Your task to perform on an android device: Open Chrome and go to settings Image 0: 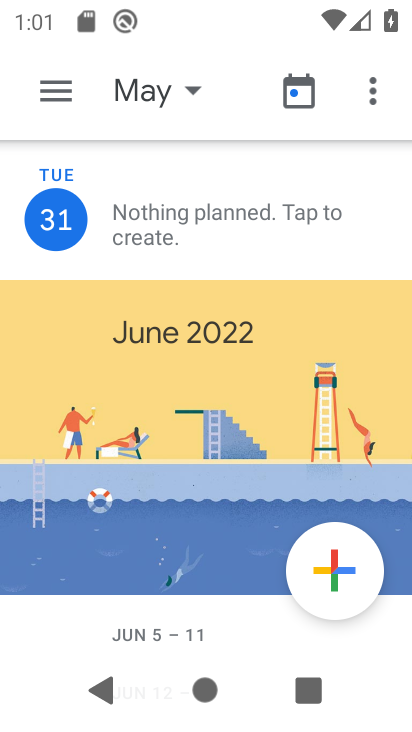
Step 0: press home button
Your task to perform on an android device: Open Chrome and go to settings Image 1: 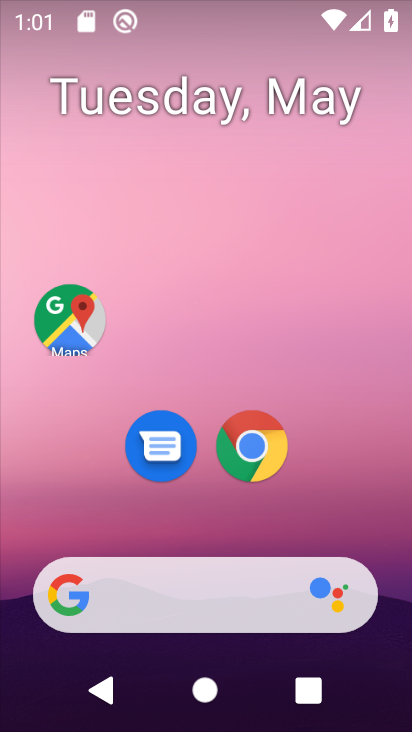
Step 1: click (225, 455)
Your task to perform on an android device: Open Chrome and go to settings Image 2: 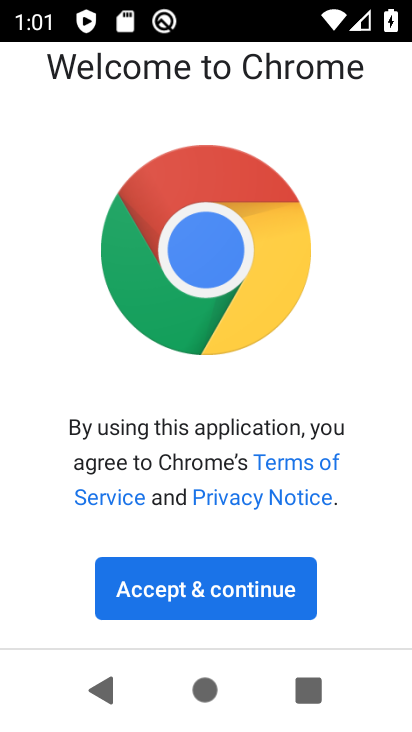
Step 2: click (239, 598)
Your task to perform on an android device: Open Chrome and go to settings Image 3: 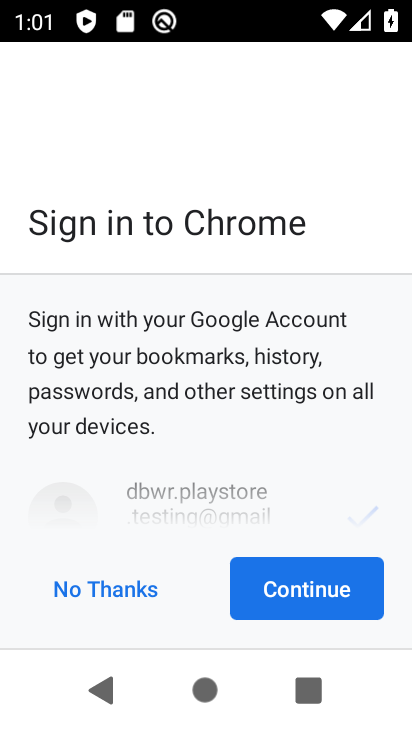
Step 3: click (294, 582)
Your task to perform on an android device: Open Chrome and go to settings Image 4: 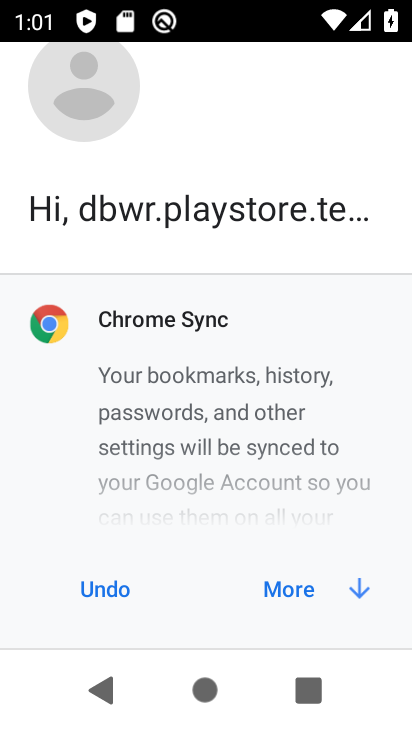
Step 4: click (337, 594)
Your task to perform on an android device: Open Chrome and go to settings Image 5: 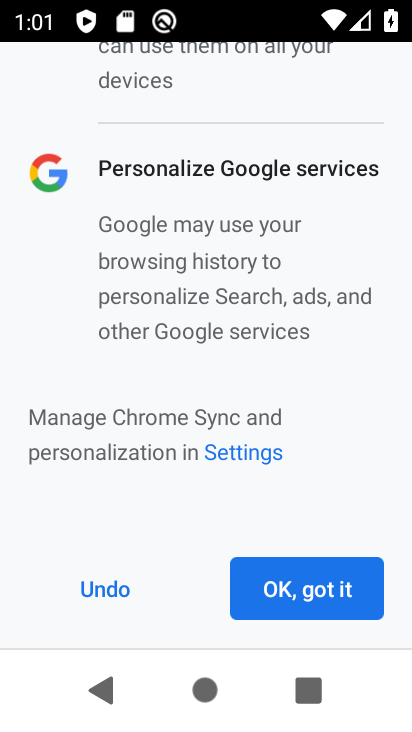
Step 5: click (337, 594)
Your task to perform on an android device: Open Chrome and go to settings Image 6: 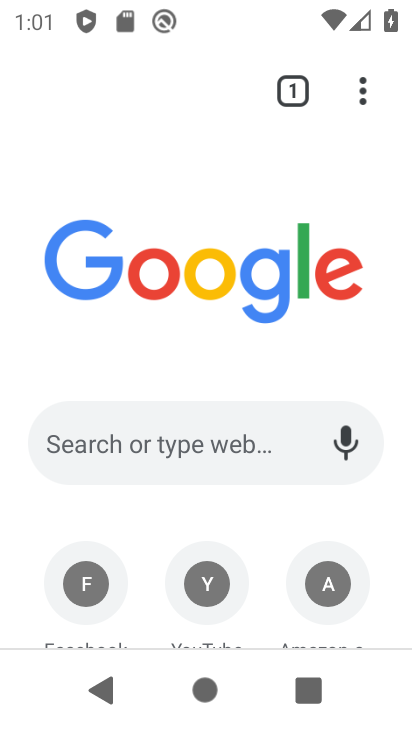
Step 6: click (369, 84)
Your task to perform on an android device: Open Chrome and go to settings Image 7: 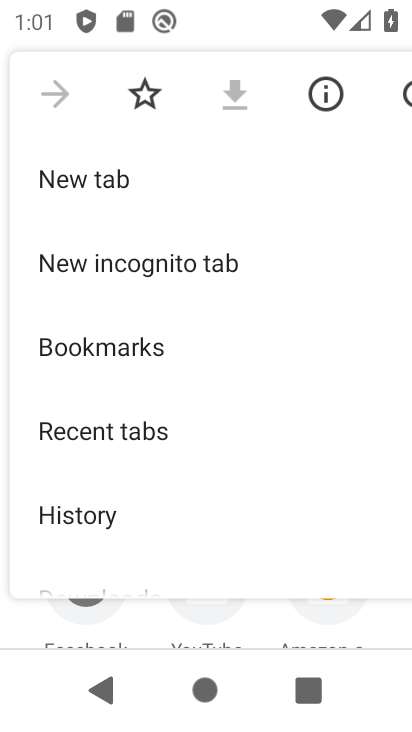
Step 7: drag from (198, 492) to (172, 92)
Your task to perform on an android device: Open Chrome and go to settings Image 8: 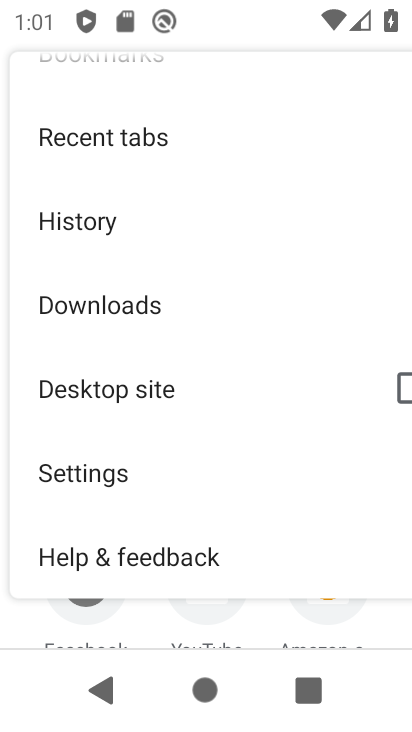
Step 8: click (67, 459)
Your task to perform on an android device: Open Chrome and go to settings Image 9: 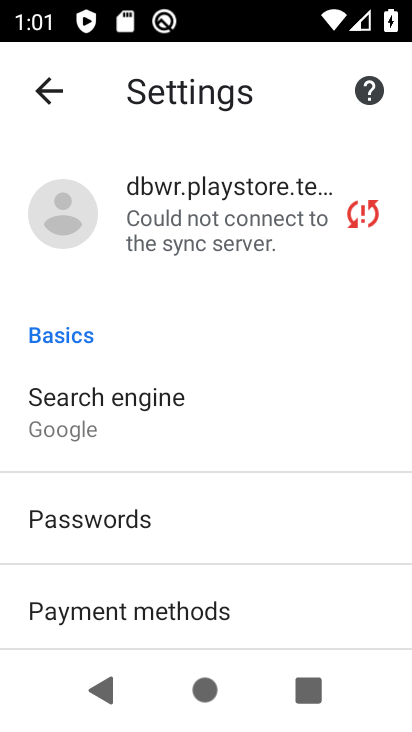
Step 9: task complete